Your task to perform on an android device: toggle pop-ups in chrome Image 0: 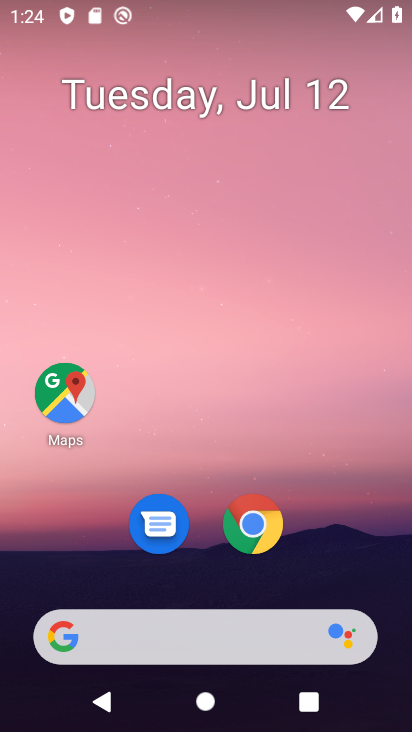
Step 0: drag from (324, 521) to (338, 54)
Your task to perform on an android device: toggle pop-ups in chrome Image 1: 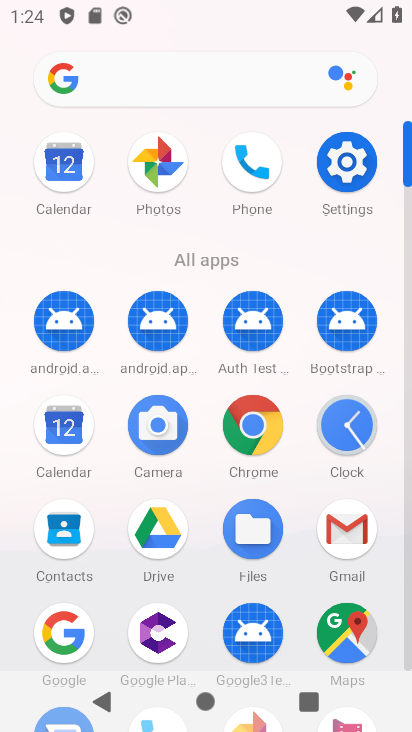
Step 1: click (250, 435)
Your task to perform on an android device: toggle pop-ups in chrome Image 2: 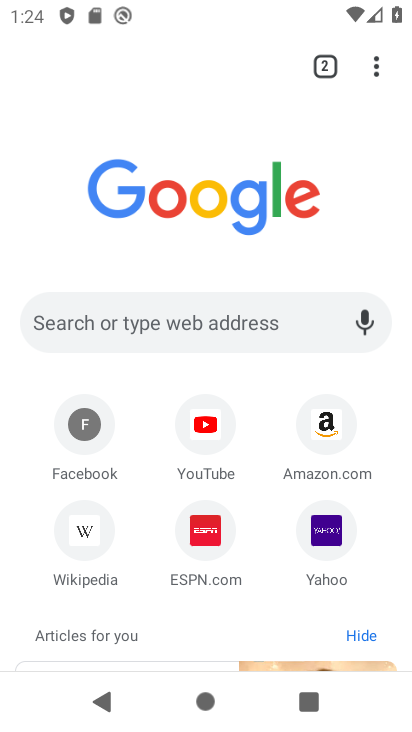
Step 2: click (370, 70)
Your task to perform on an android device: toggle pop-ups in chrome Image 3: 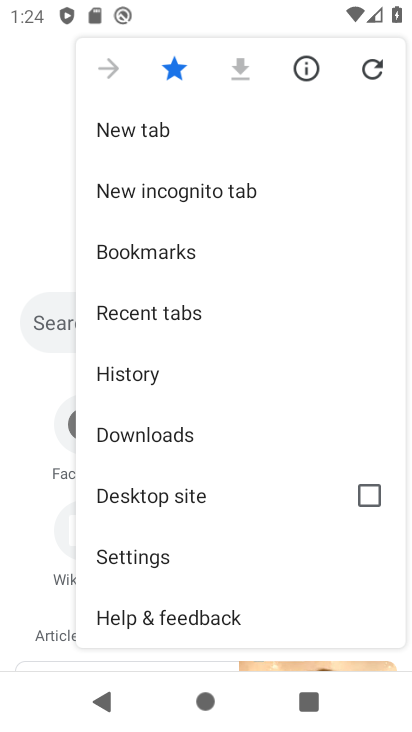
Step 3: click (168, 558)
Your task to perform on an android device: toggle pop-ups in chrome Image 4: 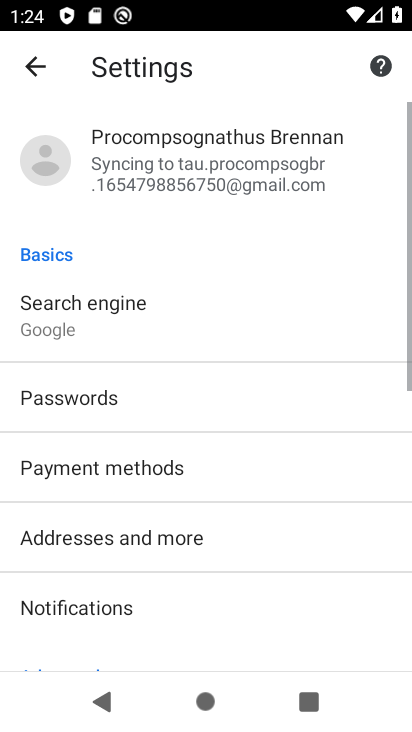
Step 4: drag from (262, 481) to (282, 136)
Your task to perform on an android device: toggle pop-ups in chrome Image 5: 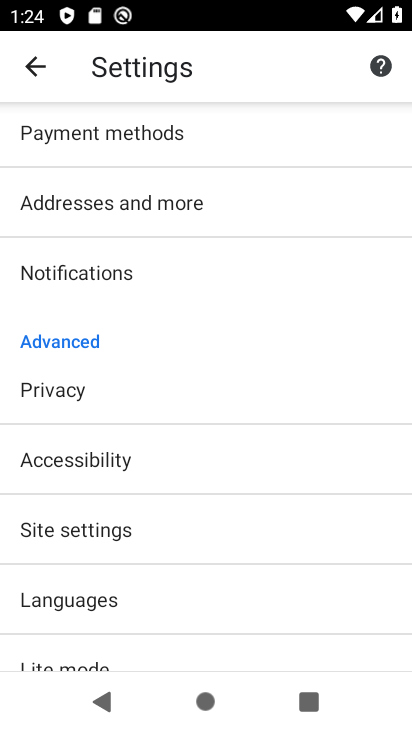
Step 5: click (92, 532)
Your task to perform on an android device: toggle pop-ups in chrome Image 6: 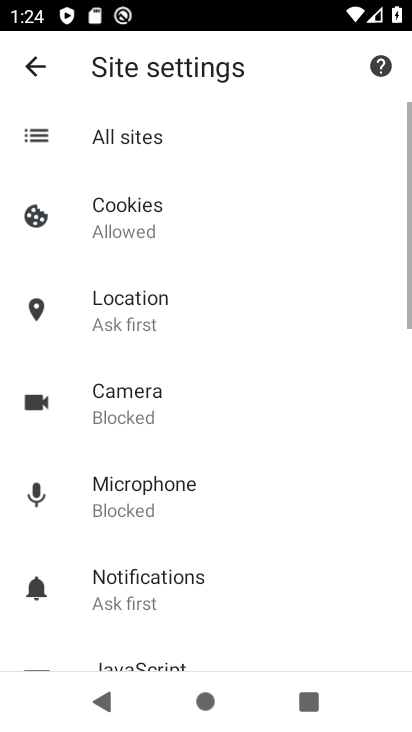
Step 6: drag from (251, 495) to (310, 200)
Your task to perform on an android device: toggle pop-ups in chrome Image 7: 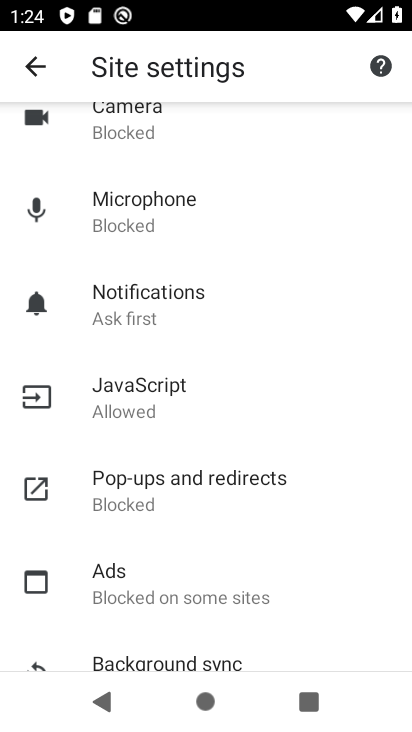
Step 7: click (176, 484)
Your task to perform on an android device: toggle pop-ups in chrome Image 8: 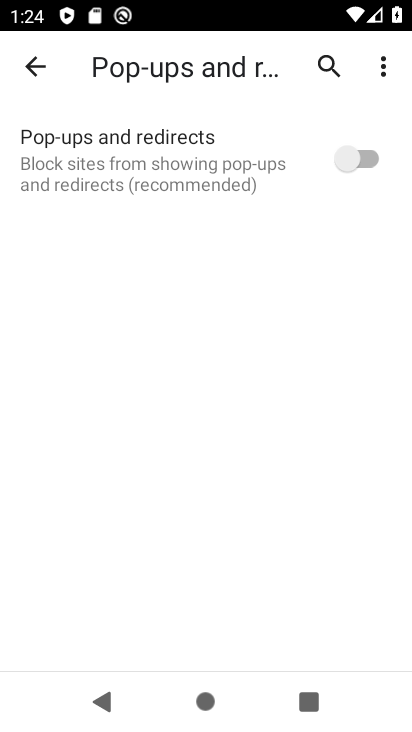
Step 8: click (353, 159)
Your task to perform on an android device: toggle pop-ups in chrome Image 9: 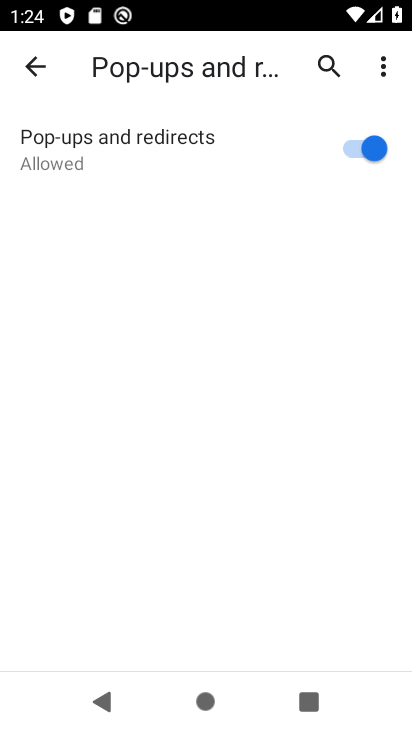
Step 9: task complete